Your task to perform on an android device: open chrome privacy settings Image 0: 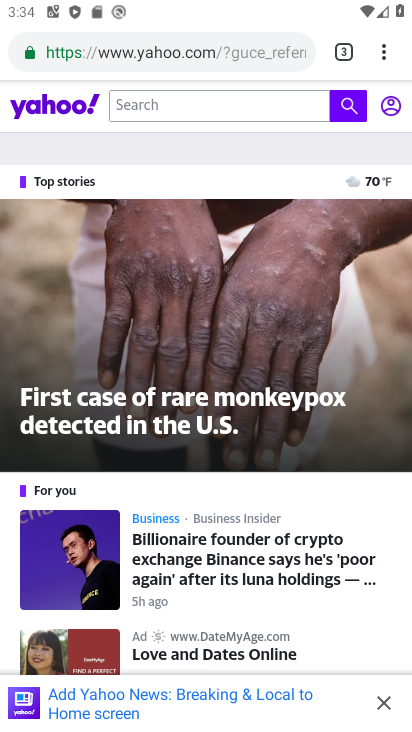
Step 0: click (380, 47)
Your task to perform on an android device: open chrome privacy settings Image 1: 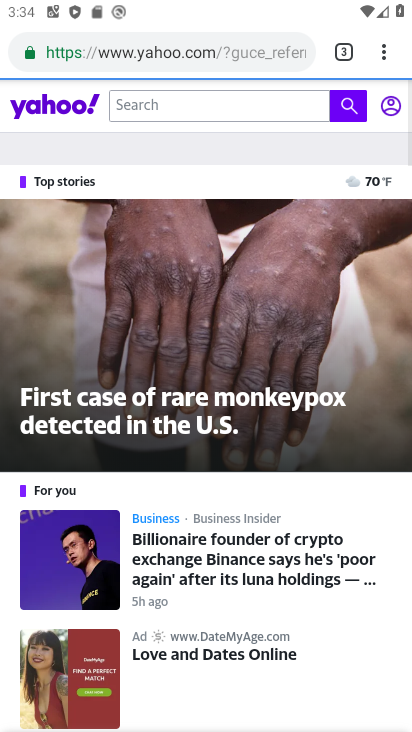
Step 1: click (387, 56)
Your task to perform on an android device: open chrome privacy settings Image 2: 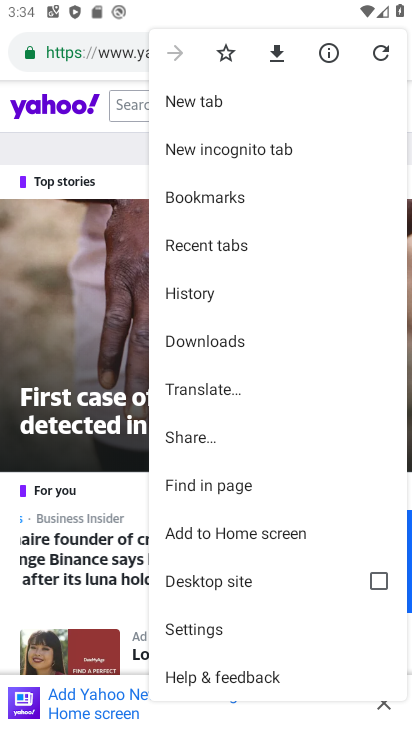
Step 2: click (224, 648)
Your task to perform on an android device: open chrome privacy settings Image 3: 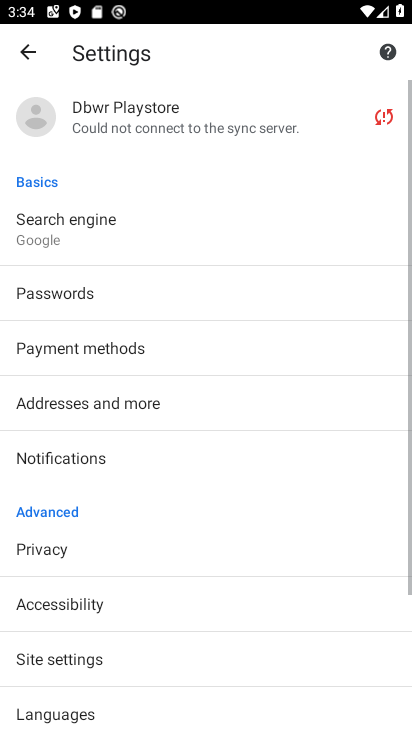
Step 3: drag from (209, 611) to (302, 237)
Your task to perform on an android device: open chrome privacy settings Image 4: 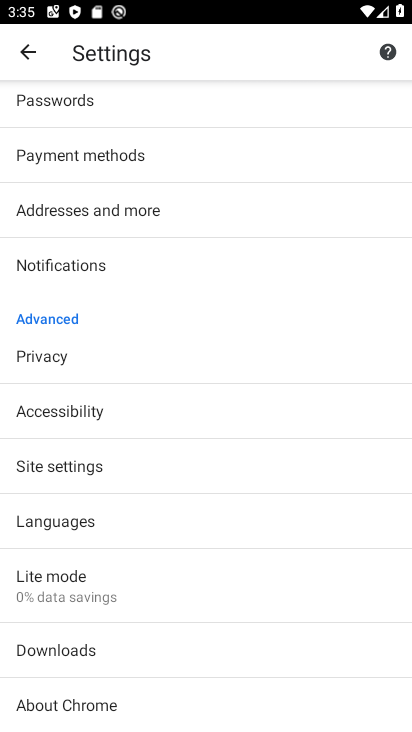
Step 4: click (69, 362)
Your task to perform on an android device: open chrome privacy settings Image 5: 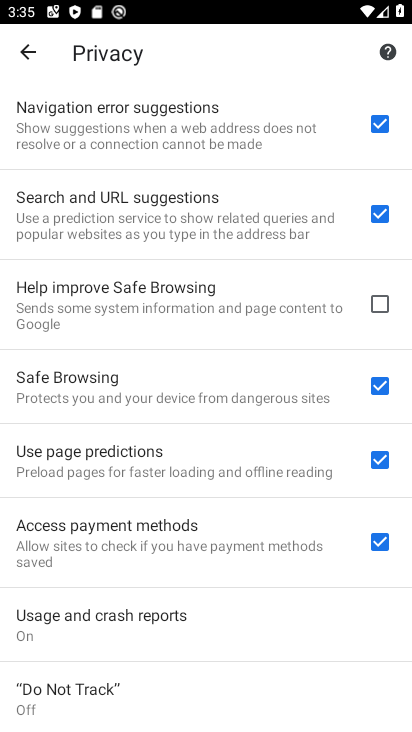
Step 5: task complete